Your task to perform on an android device: Set the phone to "Do not disturb". Image 0: 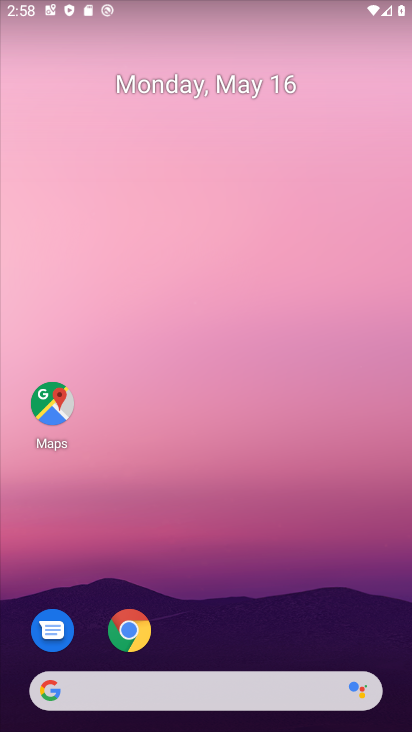
Step 0: drag from (244, 556) to (201, 38)
Your task to perform on an android device: Set the phone to "Do not disturb". Image 1: 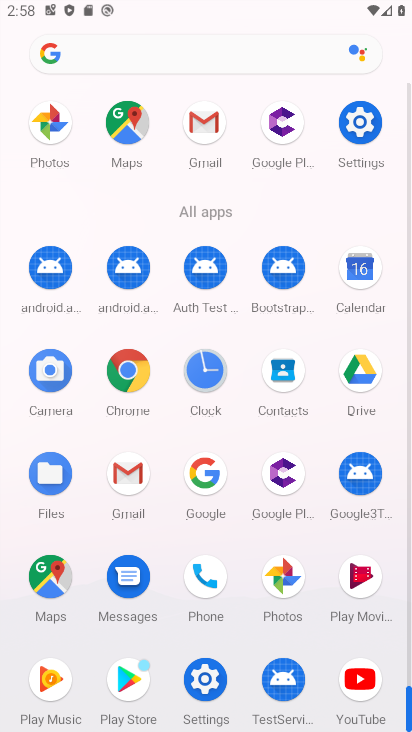
Step 1: click (207, 677)
Your task to perform on an android device: Set the phone to "Do not disturb". Image 2: 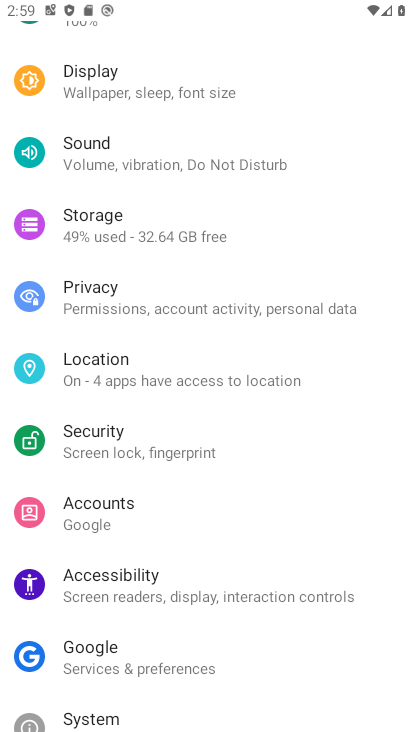
Step 2: click (217, 145)
Your task to perform on an android device: Set the phone to "Do not disturb". Image 3: 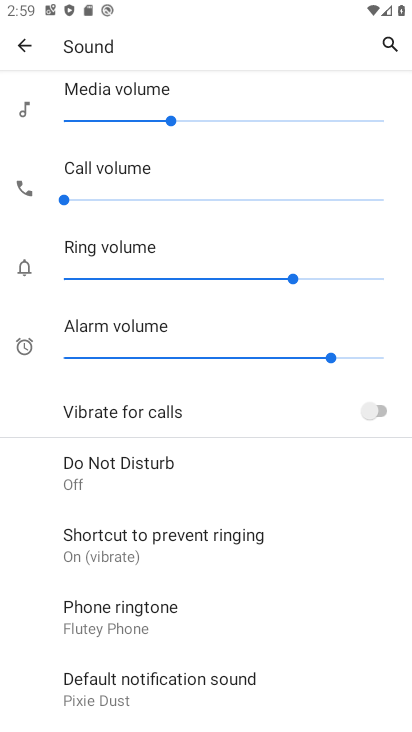
Step 3: click (139, 477)
Your task to perform on an android device: Set the phone to "Do not disturb". Image 4: 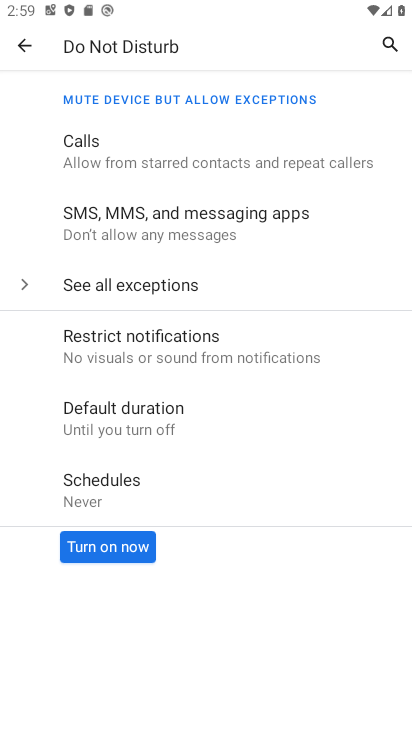
Step 4: click (95, 540)
Your task to perform on an android device: Set the phone to "Do not disturb". Image 5: 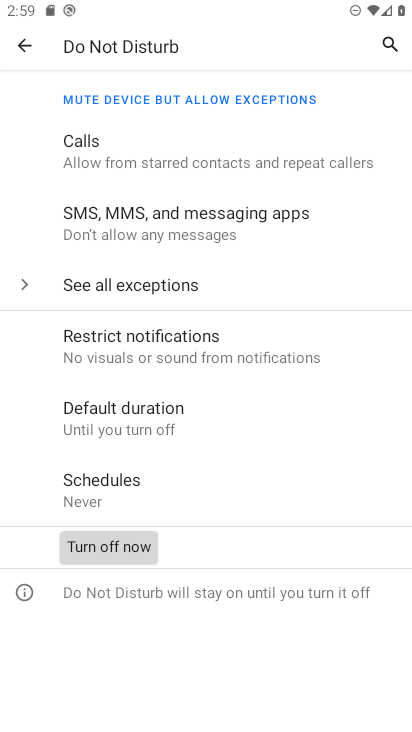
Step 5: task complete